Your task to perform on an android device: toggle sleep mode Image 0: 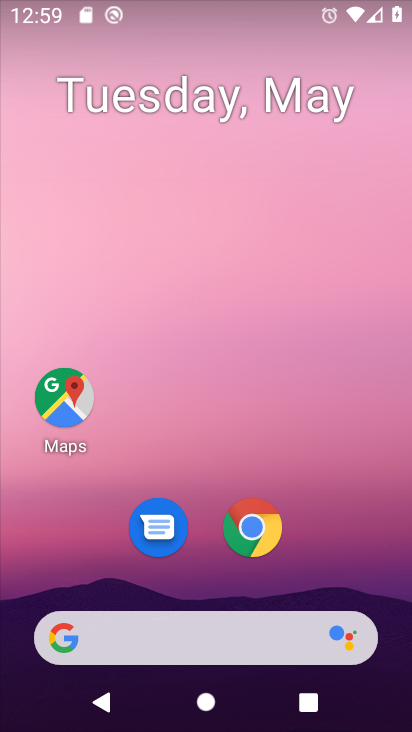
Step 0: drag from (244, 289) to (244, 115)
Your task to perform on an android device: toggle sleep mode Image 1: 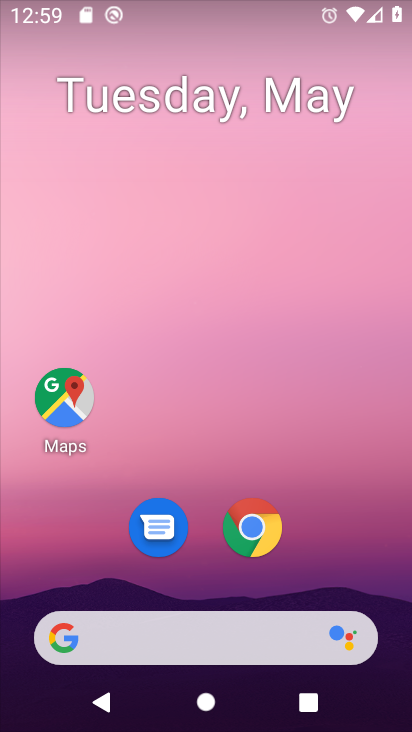
Step 1: drag from (240, 594) to (232, 124)
Your task to perform on an android device: toggle sleep mode Image 2: 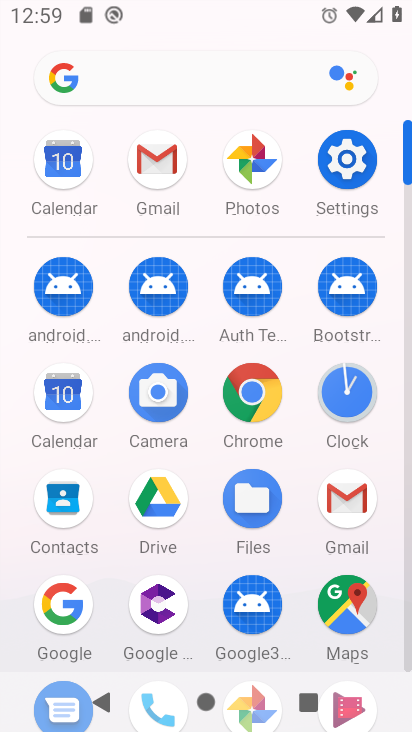
Step 2: click (337, 150)
Your task to perform on an android device: toggle sleep mode Image 3: 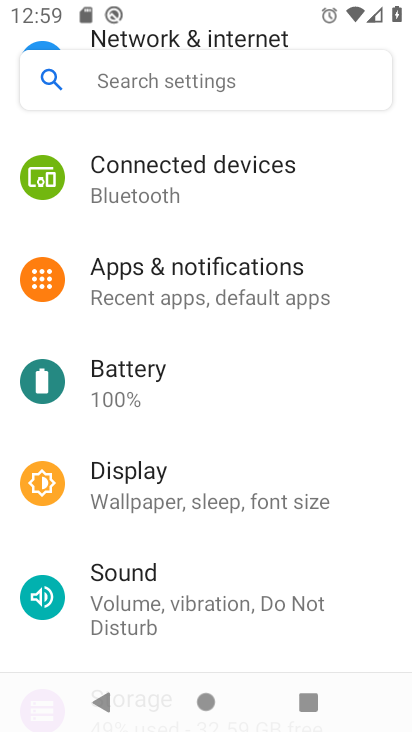
Step 3: click (267, 493)
Your task to perform on an android device: toggle sleep mode Image 4: 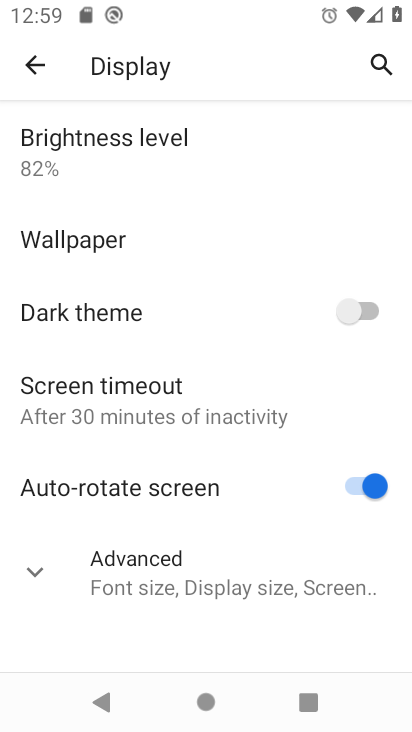
Step 4: task complete